Your task to perform on an android device: turn off smart reply in the gmail app Image 0: 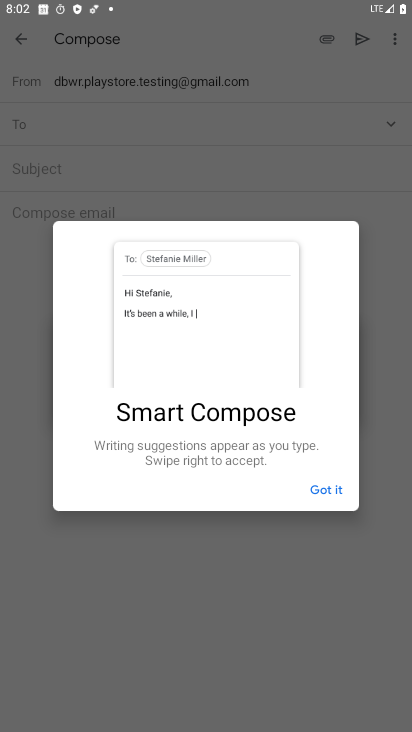
Step 0: press home button
Your task to perform on an android device: turn off smart reply in the gmail app Image 1: 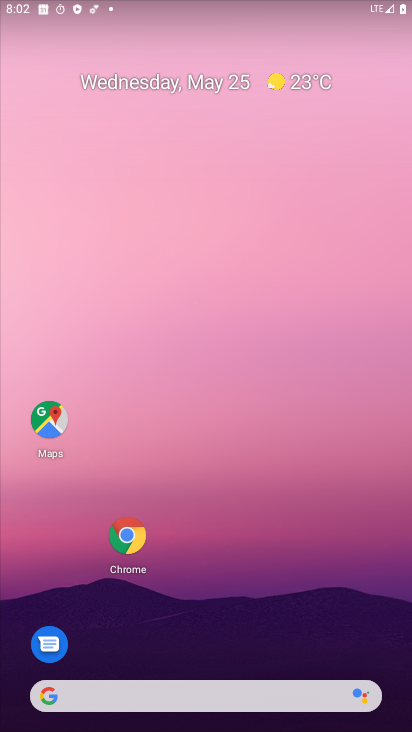
Step 1: drag from (205, 689) to (182, 310)
Your task to perform on an android device: turn off smart reply in the gmail app Image 2: 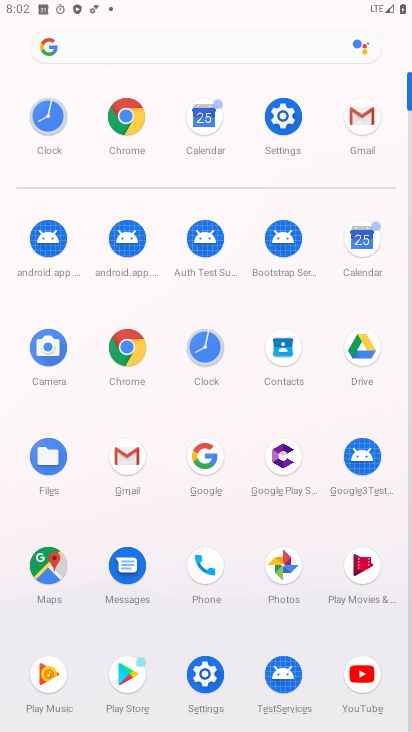
Step 2: click (124, 460)
Your task to perform on an android device: turn off smart reply in the gmail app Image 3: 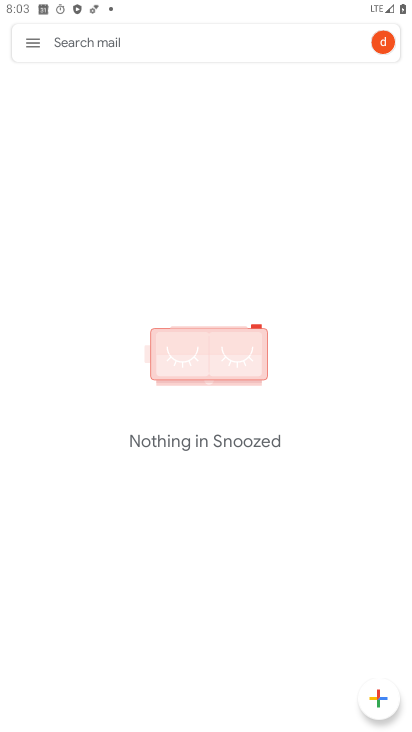
Step 3: click (36, 47)
Your task to perform on an android device: turn off smart reply in the gmail app Image 4: 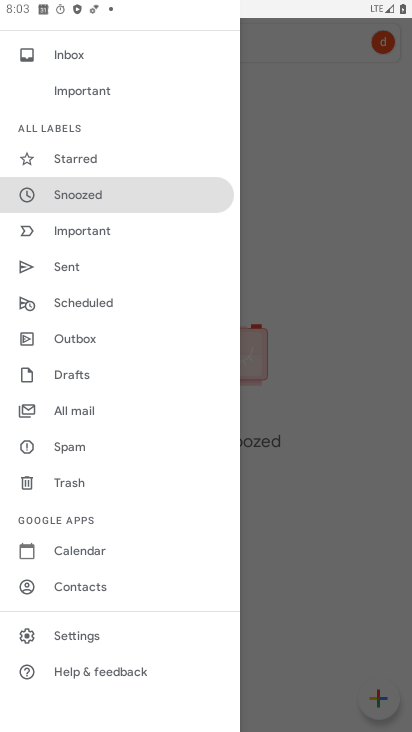
Step 4: click (80, 636)
Your task to perform on an android device: turn off smart reply in the gmail app Image 5: 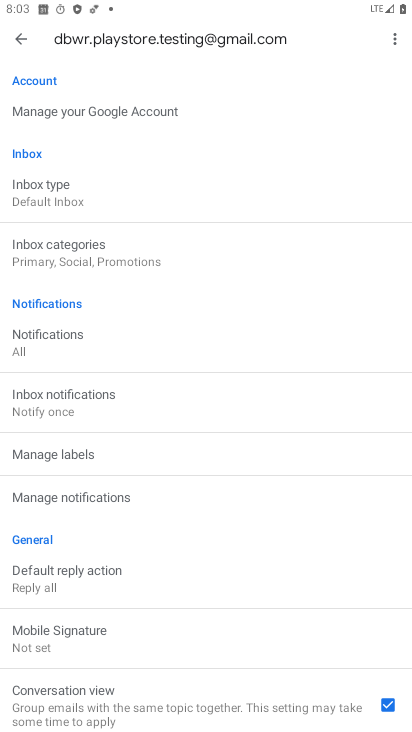
Step 5: drag from (144, 665) to (174, 235)
Your task to perform on an android device: turn off smart reply in the gmail app Image 6: 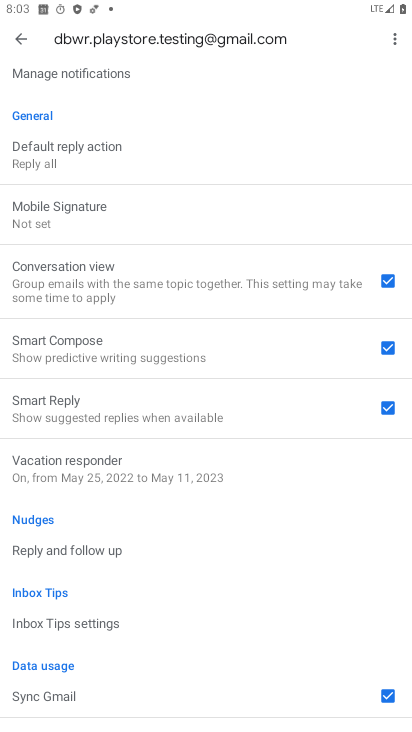
Step 6: click (356, 420)
Your task to perform on an android device: turn off smart reply in the gmail app Image 7: 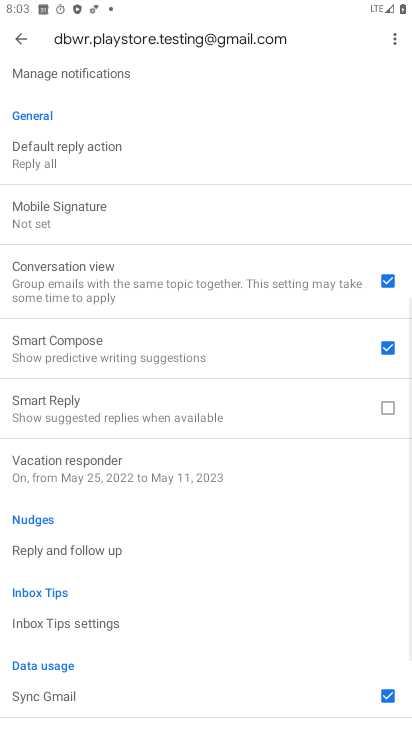
Step 7: task complete